Your task to perform on an android device: Open internet settings Image 0: 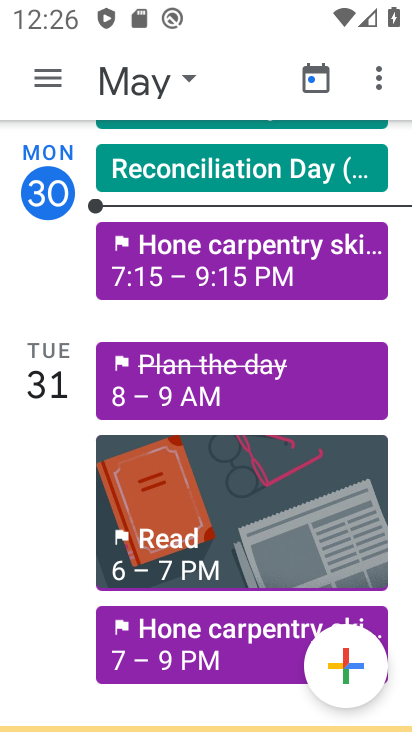
Step 0: press back button
Your task to perform on an android device: Open internet settings Image 1: 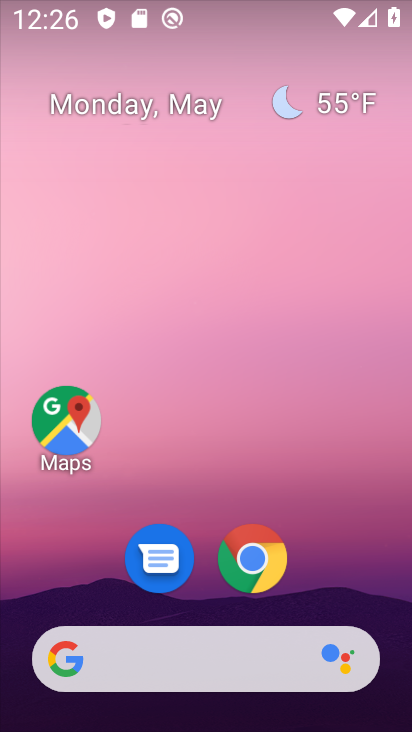
Step 1: drag from (372, 569) to (222, 35)
Your task to perform on an android device: Open internet settings Image 2: 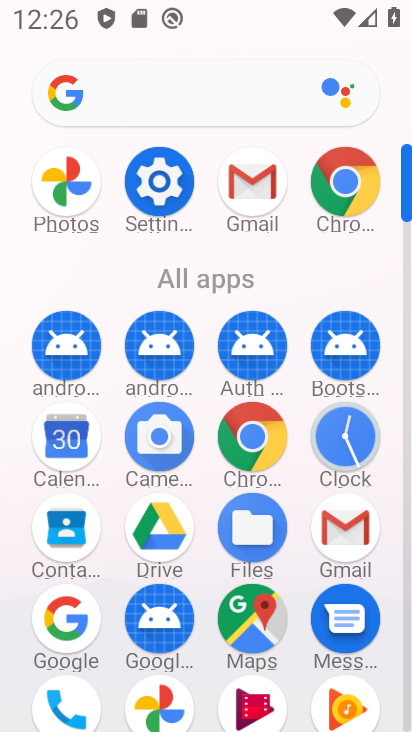
Step 2: drag from (10, 570) to (10, 223)
Your task to perform on an android device: Open internet settings Image 3: 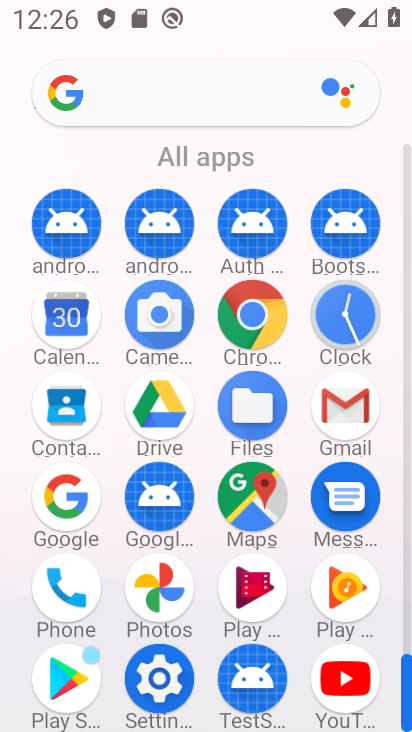
Step 3: drag from (27, 539) to (13, 178)
Your task to perform on an android device: Open internet settings Image 4: 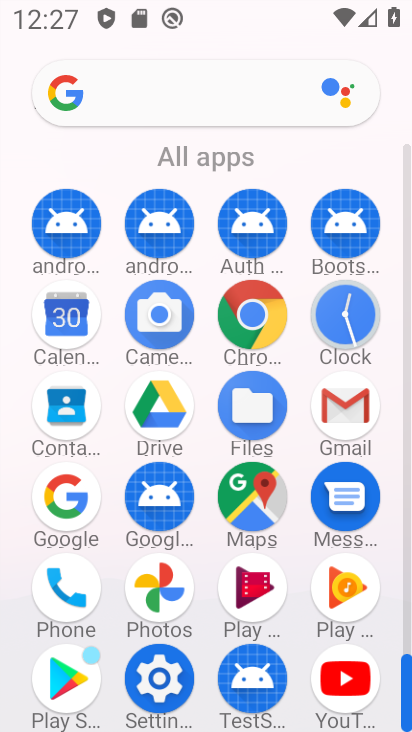
Step 4: click (162, 671)
Your task to perform on an android device: Open internet settings Image 5: 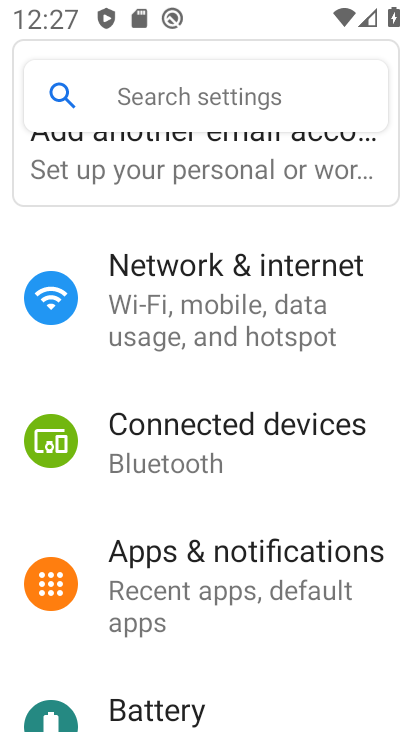
Step 5: click (270, 279)
Your task to perform on an android device: Open internet settings Image 6: 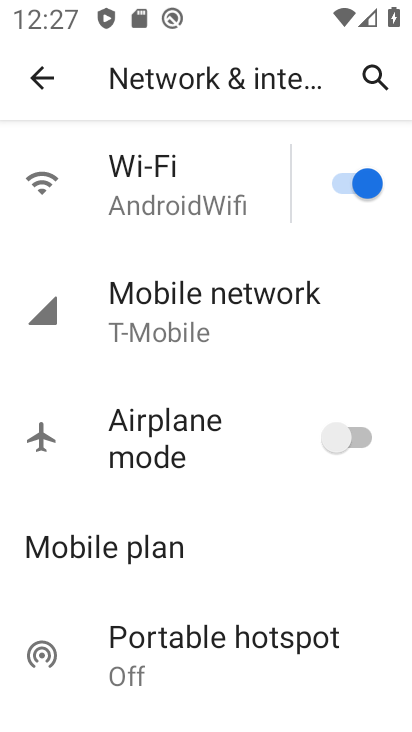
Step 6: drag from (226, 527) to (232, 204)
Your task to perform on an android device: Open internet settings Image 7: 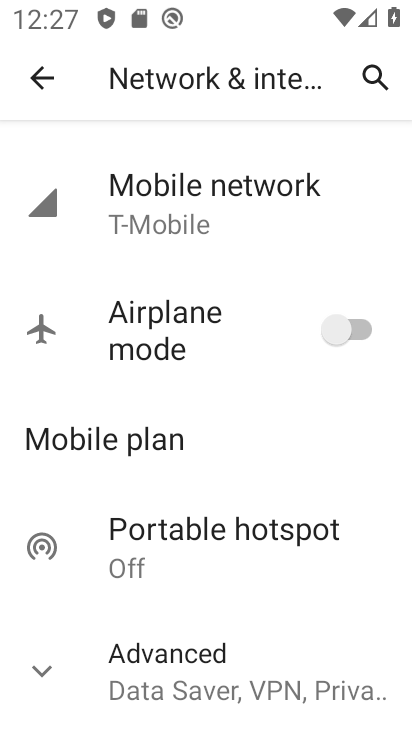
Step 7: click (52, 666)
Your task to perform on an android device: Open internet settings Image 8: 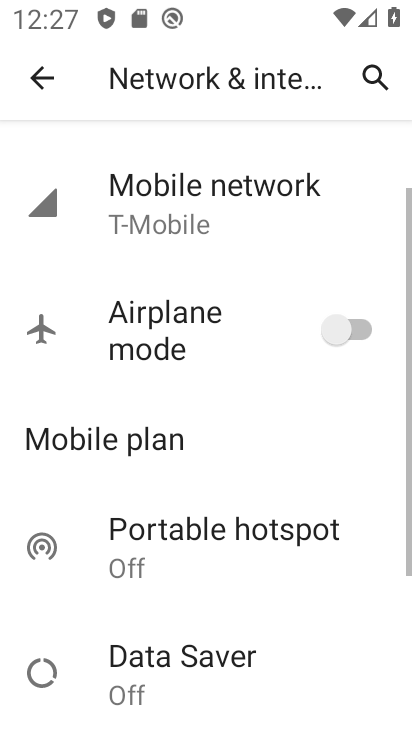
Step 8: task complete